Your task to perform on an android device: turn off location Image 0: 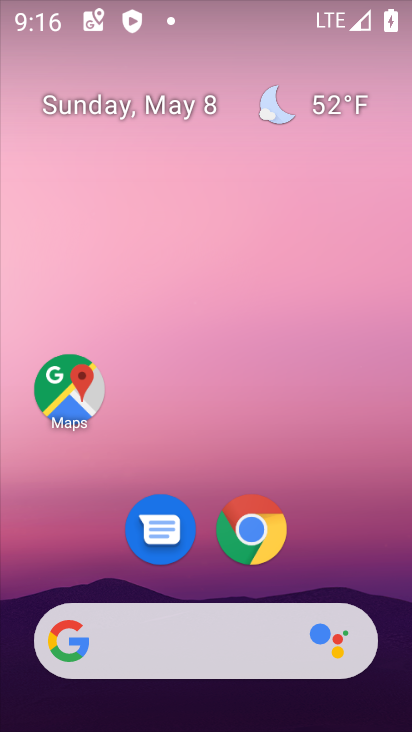
Step 0: drag from (388, 532) to (346, 123)
Your task to perform on an android device: turn off location Image 1: 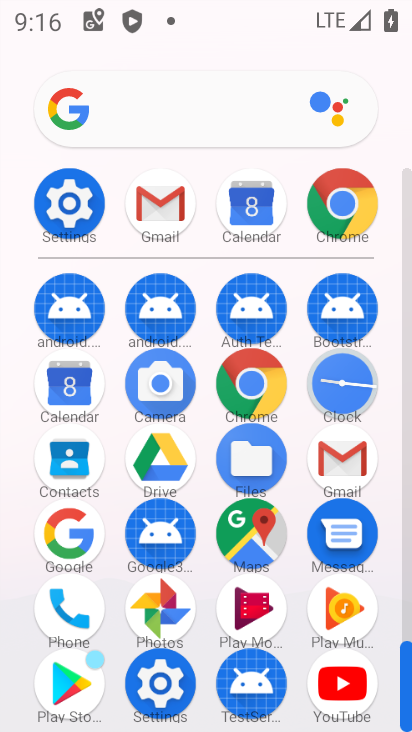
Step 1: click (92, 212)
Your task to perform on an android device: turn off location Image 2: 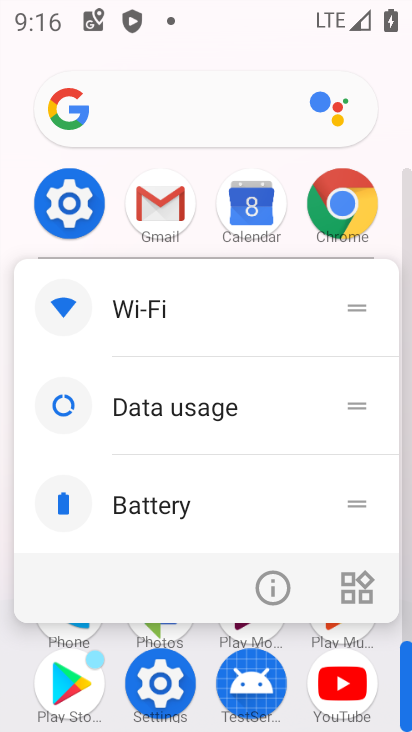
Step 2: click (85, 211)
Your task to perform on an android device: turn off location Image 3: 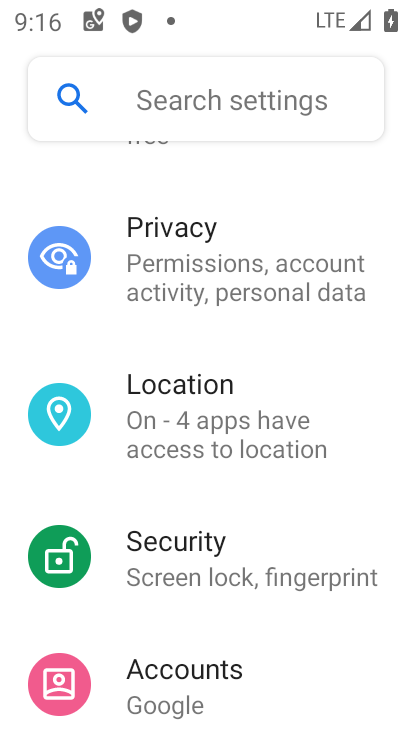
Step 3: click (191, 398)
Your task to perform on an android device: turn off location Image 4: 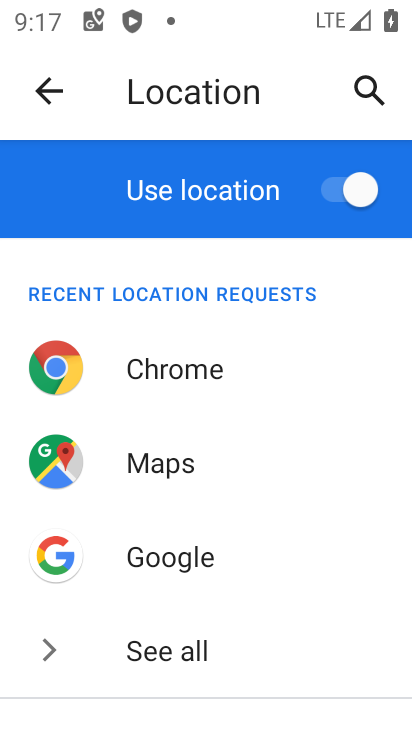
Step 4: click (338, 195)
Your task to perform on an android device: turn off location Image 5: 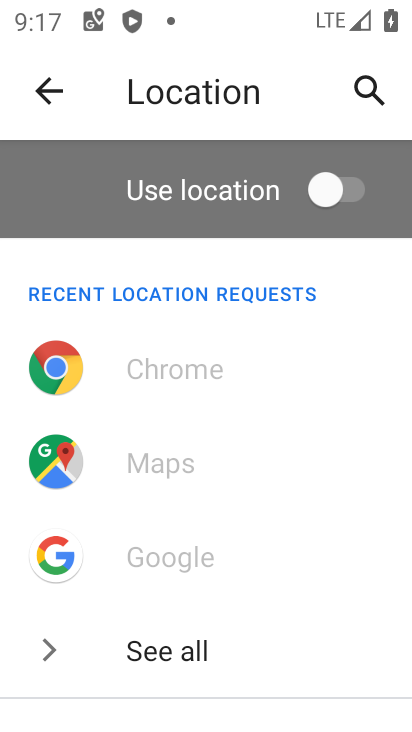
Step 5: task complete